Your task to perform on an android device: Set the phone to "Do not disturb". Image 0: 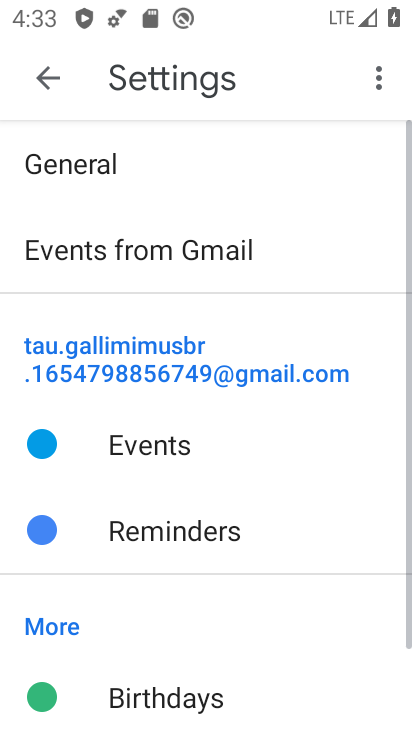
Step 0: press back button
Your task to perform on an android device: Set the phone to "Do not disturb". Image 1: 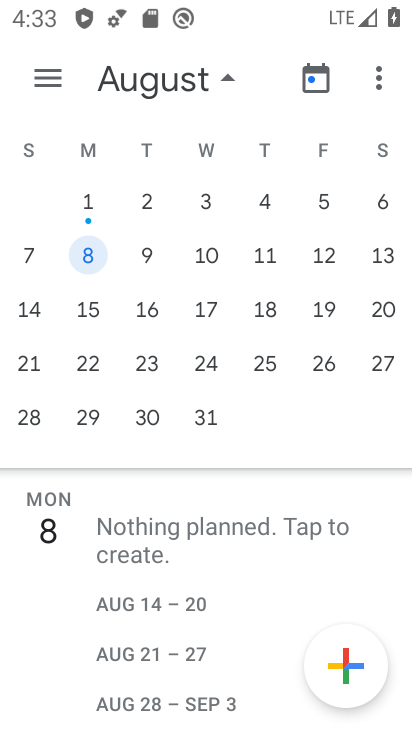
Step 1: press back button
Your task to perform on an android device: Set the phone to "Do not disturb". Image 2: 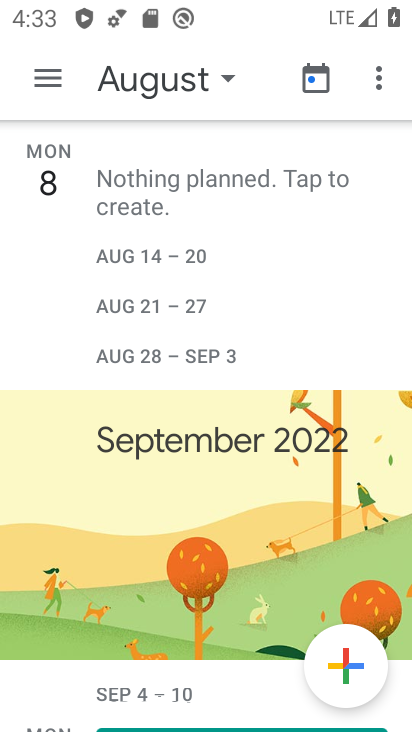
Step 2: press back button
Your task to perform on an android device: Set the phone to "Do not disturb". Image 3: 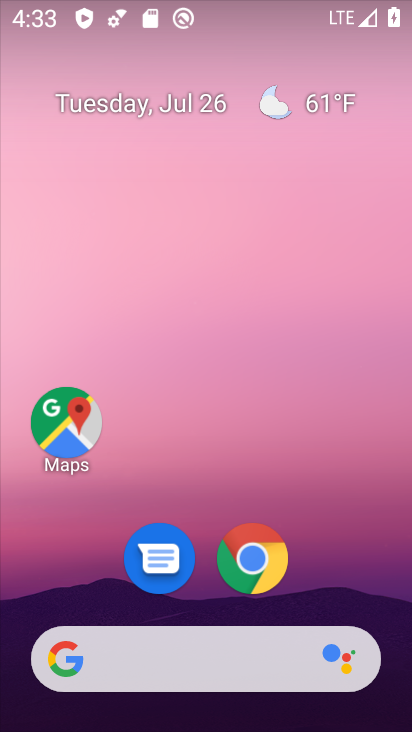
Step 3: drag from (257, 9) to (286, 591)
Your task to perform on an android device: Set the phone to "Do not disturb". Image 4: 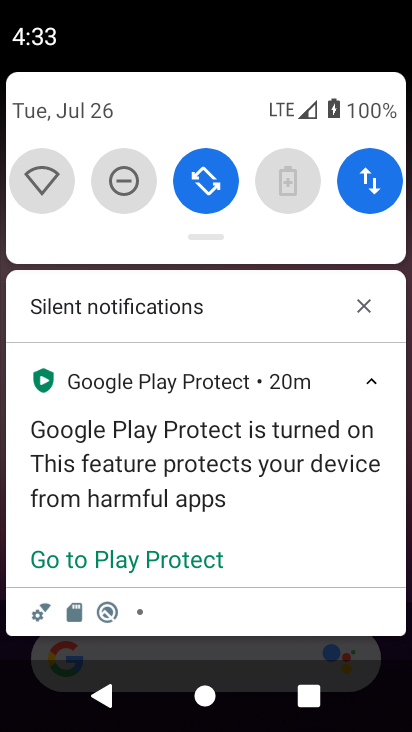
Step 4: click (115, 177)
Your task to perform on an android device: Set the phone to "Do not disturb". Image 5: 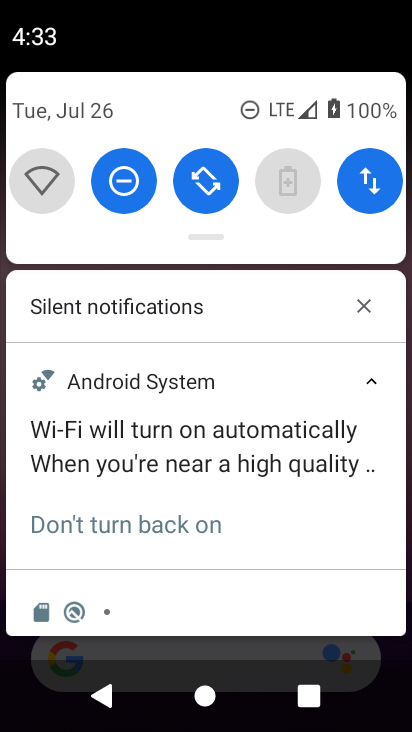
Step 5: task complete